Your task to perform on an android device: change notification settings in the gmail app Image 0: 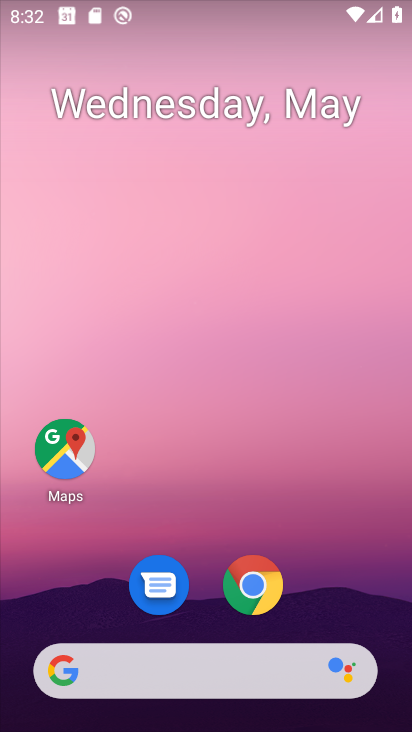
Step 0: drag from (315, 576) to (249, 57)
Your task to perform on an android device: change notification settings in the gmail app Image 1: 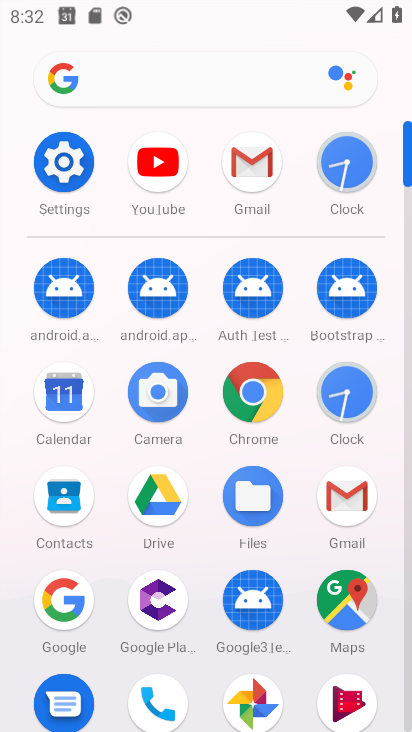
Step 1: click (243, 173)
Your task to perform on an android device: change notification settings in the gmail app Image 2: 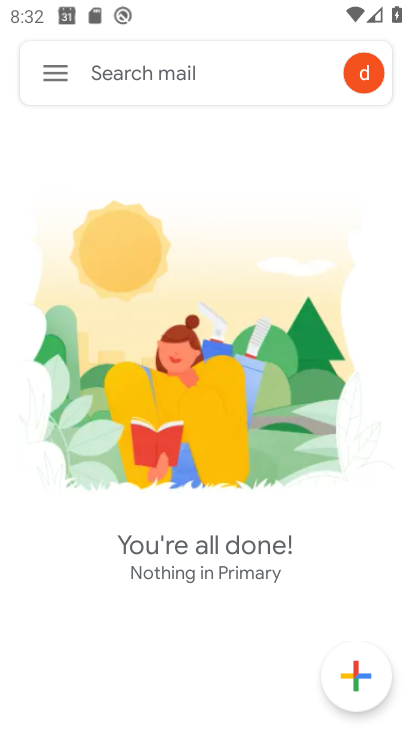
Step 2: click (58, 66)
Your task to perform on an android device: change notification settings in the gmail app Image 3: 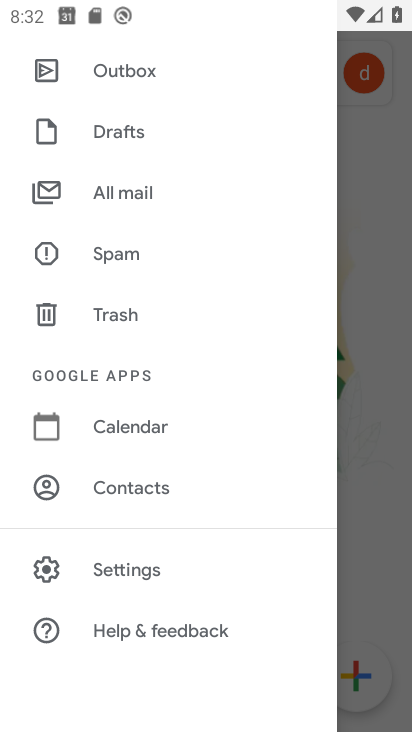
Step 3: click (203, 565)
Your task to perform on an android device: change notification settings in the gmail app Image 4: 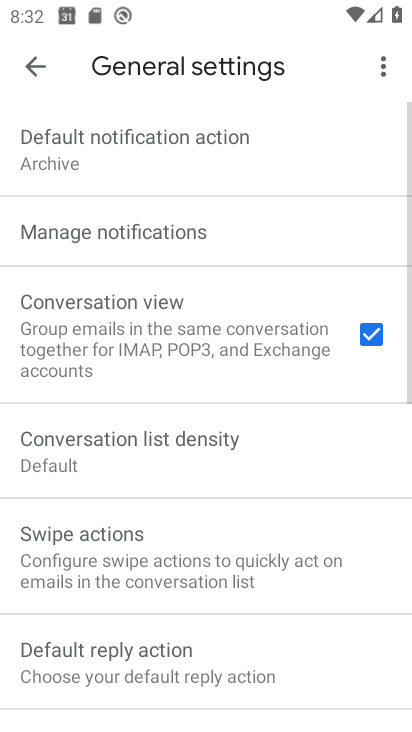
Step 4: click (232, 225)
Your task to perform on an android device: change notification settings in the gmail app Image 5: 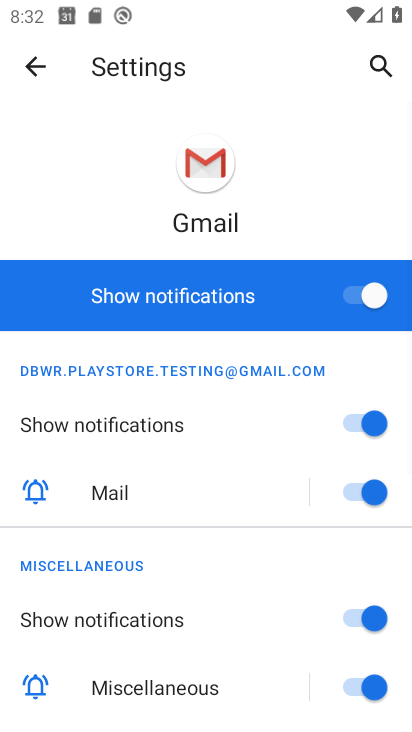
Step 5: click (348, 287)
Your task to perform on an android device: change notification settings in the gmail app Image 6: 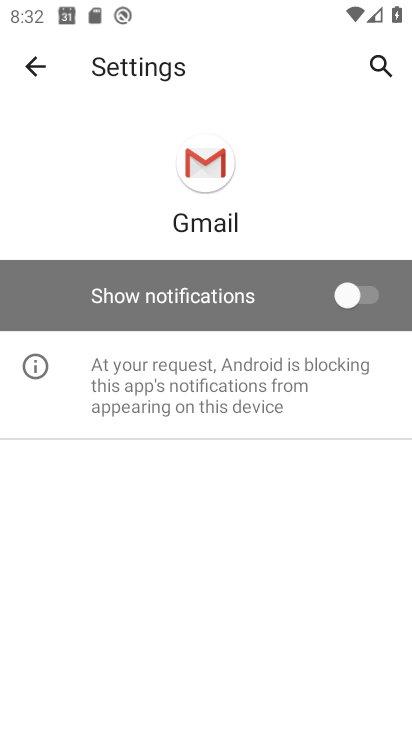
Step 6: task complete